Your task to perform on an android device: check the backup settings in the google photos Image 0: 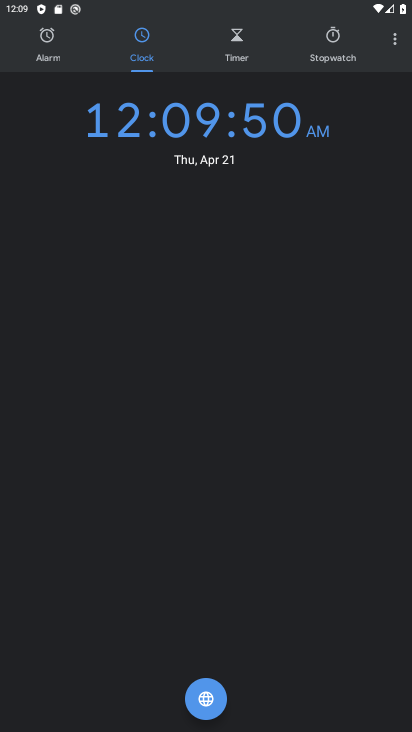
Step 0: press back button
Your task to perform on an android device: check the backup settings in the google photos Image 1: 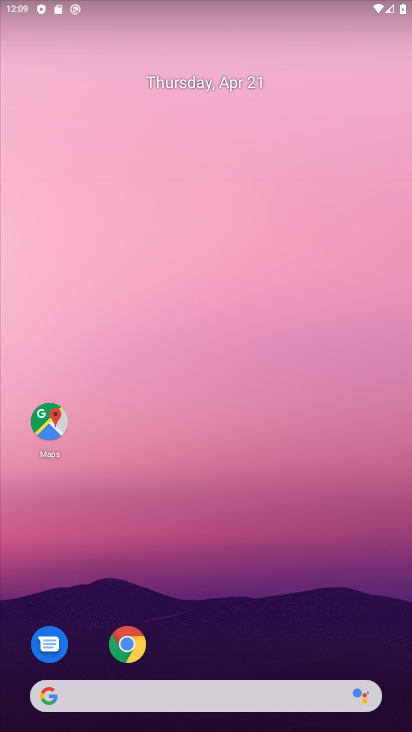
Step 1: drag from (216, 585) to (294, 71)
Your task to perform on an android device: check the backup settings in the google photos Image 2: 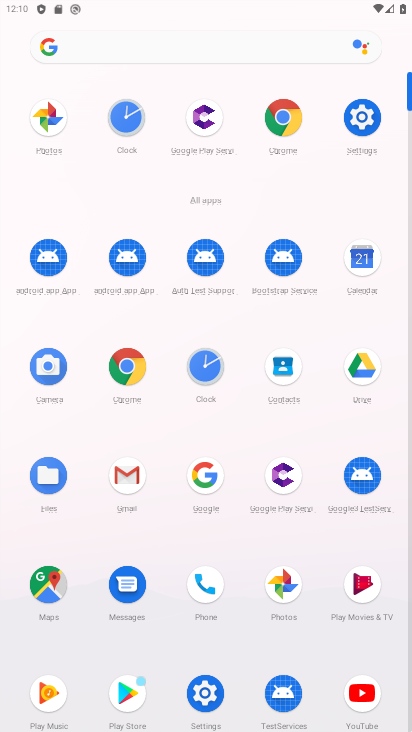
Step 2: click (282, 580)
Your task to perform on an android device: check the backup settings in the google photos Image 3: 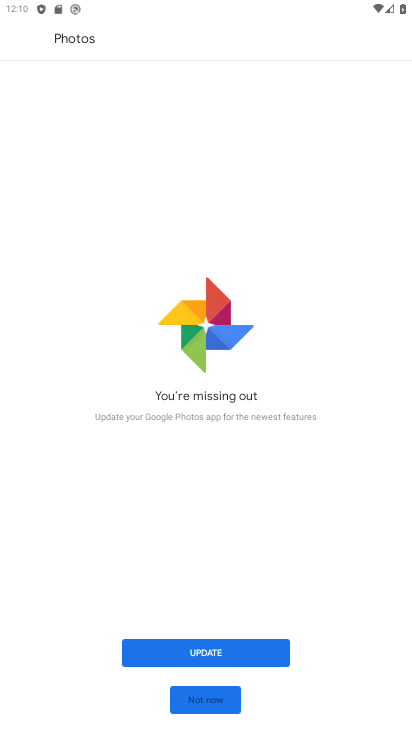
Step 3: click (211, 699)
Your task to perform on an android device: check the backup settings in the google photos Image 4: 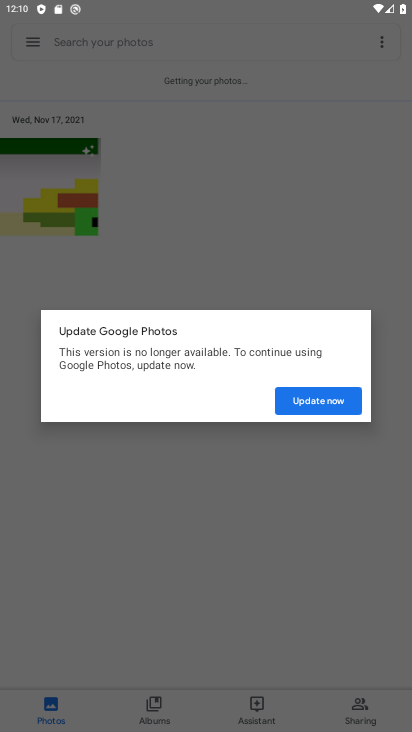
Step 4: click (337, 405)
Your task to perform on an android device: check the backup settings in the google photos Image 5: 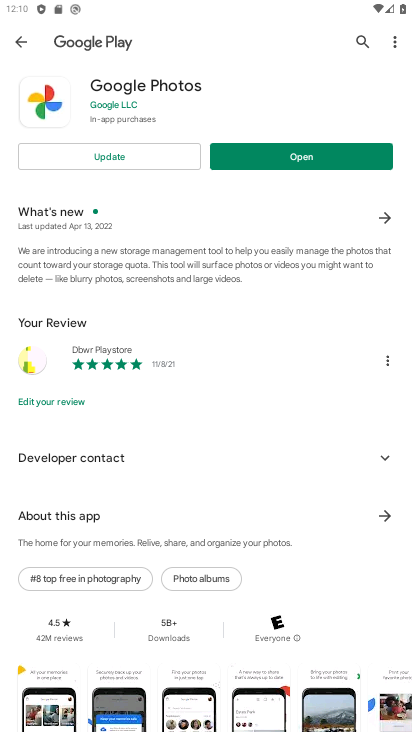
Step 5: click (297, 148)
Your task to perform on an android device: check the backup settings in the google photos Image 6: 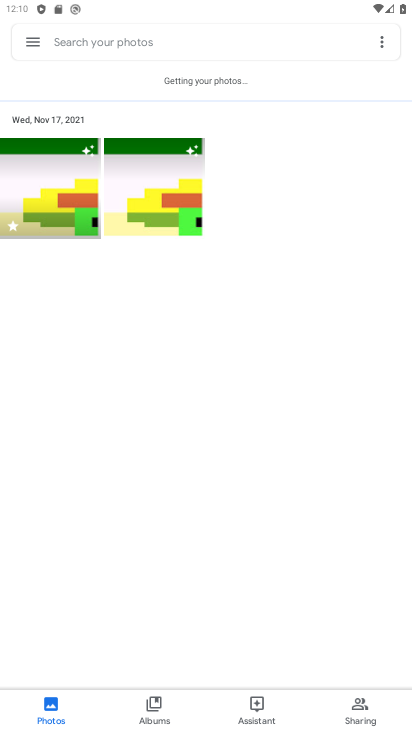
Step 6: click (34, 41)
Your task to perform on an android device: check the backup settings in the google photos Image 7: 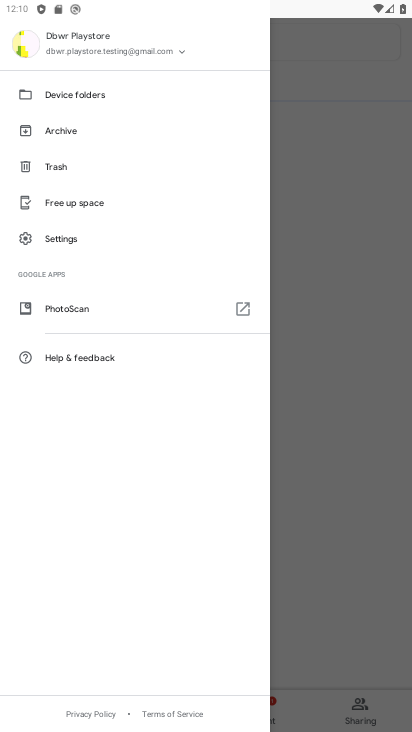
Step 7: click (79, 241)
Your task to perform on an android device: check the backup settings in the google photos Image 8: 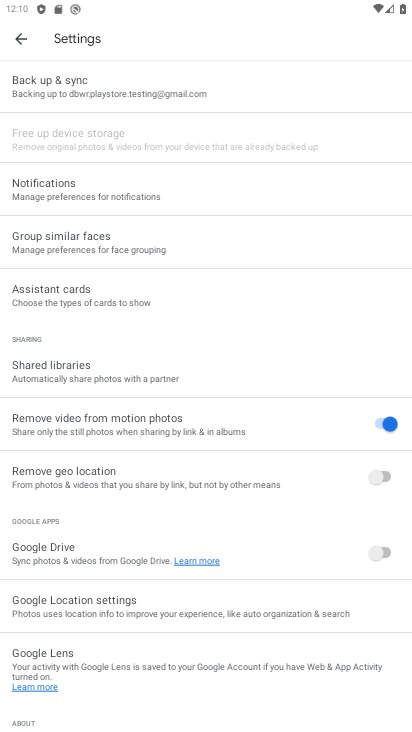
Step 8: click (84, 92)
Your task to perform on an android device: check the backup settings in the google photos Image 9: 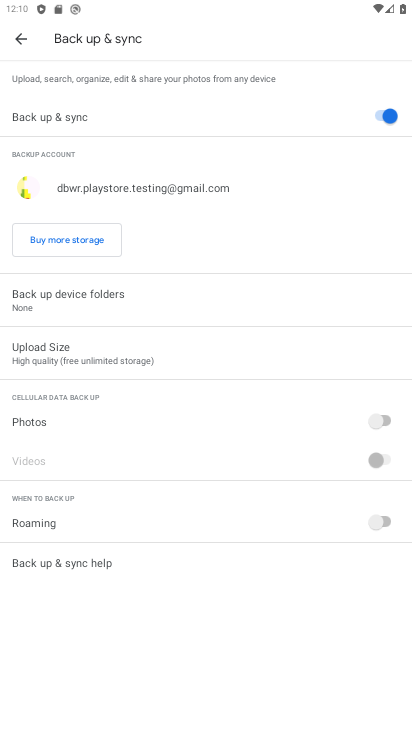
Step 9: task complete